Your task to perform on an android device: open app "Adobe Express: Graphic Design" (install if not already installed) Image 0: 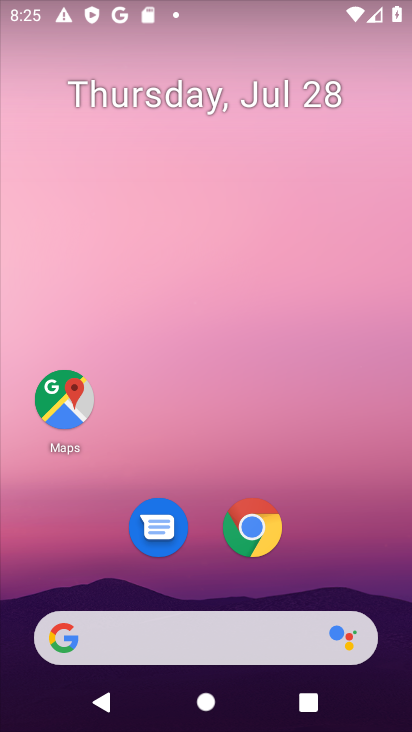
Step 0: drag from (217, 590) to (238, 166)
Your task to perform on an android device: open app "Adobe Express: Graphic Design" (install if not already installed) Image 1: 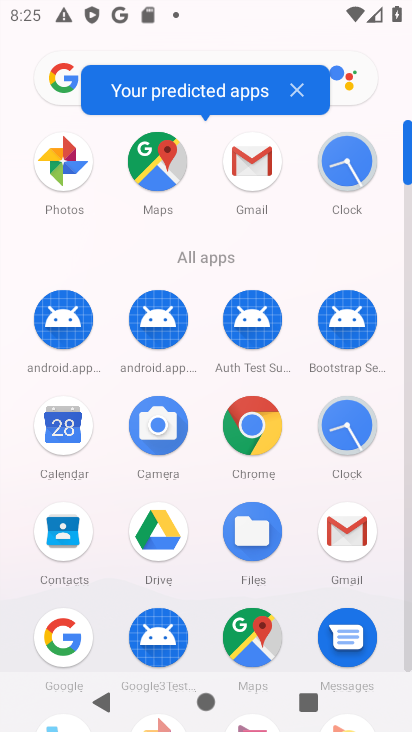
Step 1: click (257, 55)
Your task to perform on an android device: open app "Adobe Express: Graphic Design" (install if not already installed) Image 2: 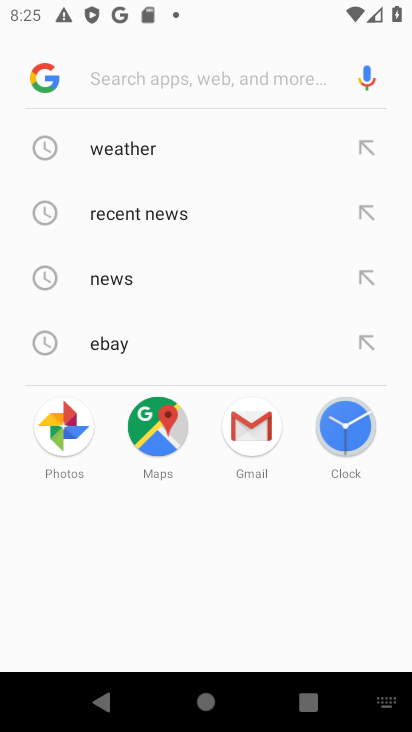
Step 2: type "adobe"
Your task to perform on an android device: open app "Adobe Express: Graphic Design" (install if not already installed) Image 3: 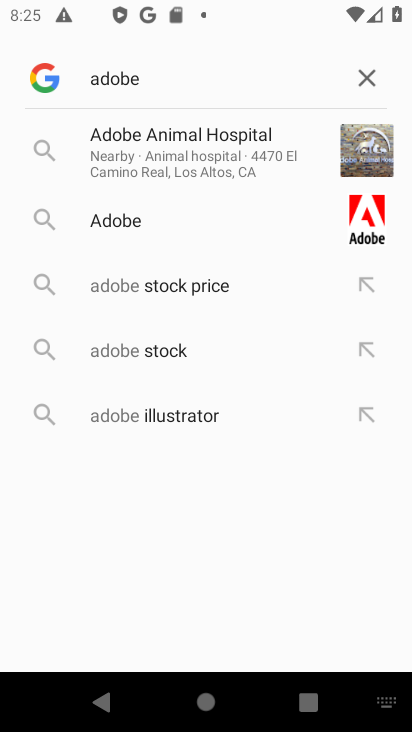
Step 3: click (241, 219)
Your task to perform on an android device: open app "Adobe Express: Graphic Design" (install if not already installed) Image 4: 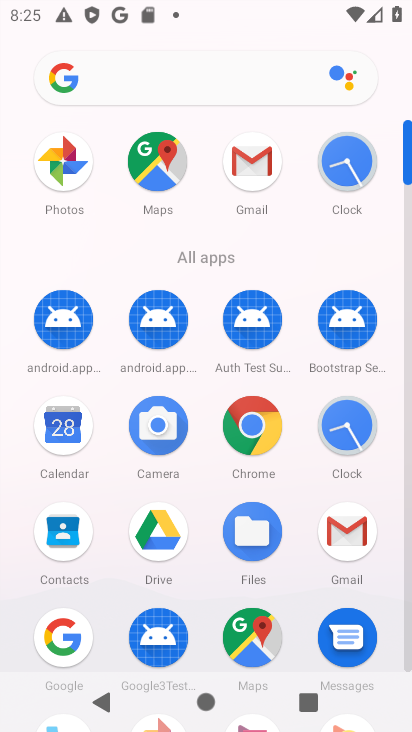
Step 4: click (295, 498)
Your task to perform on an android device: open app "Adobe Express: Graphic Design" (install if not already installed) Image 5: 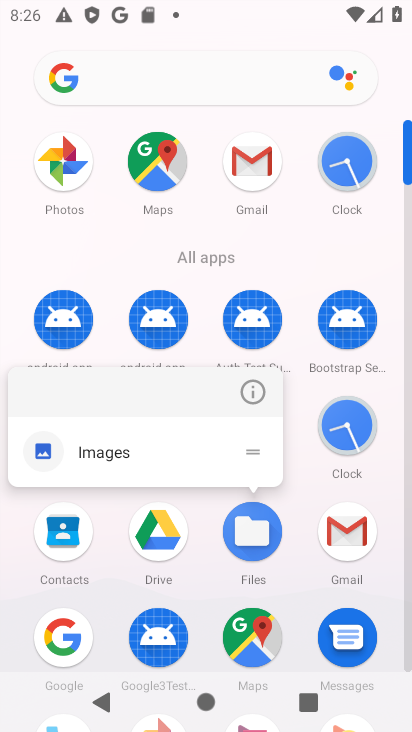
Step 5: task complete